Your task to perform on an android device: Open the stopwatch Image 0: 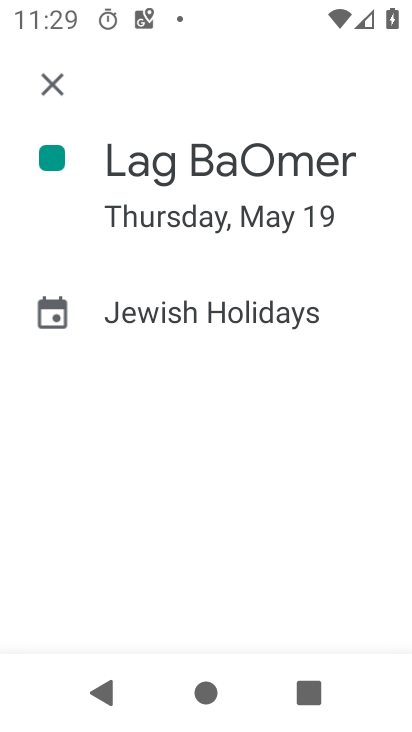
Step 0: press home button
Your task to perform on an android device: Open the stopwatch Image 1: 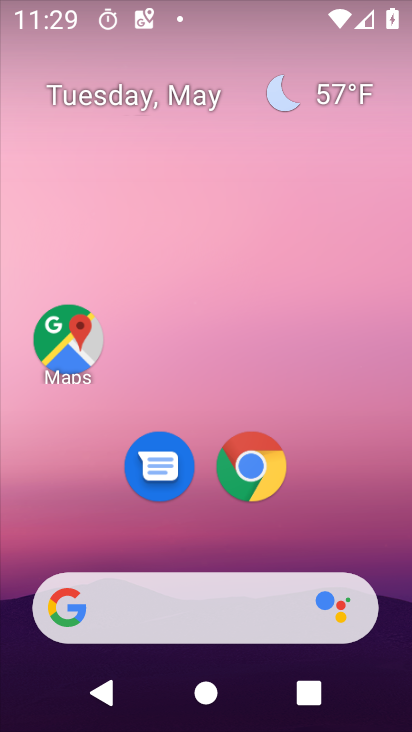
Step 1: drag from (225, 558) to (234, 231)
Your task to perform on an android device: Open the stopwatch Image 2: 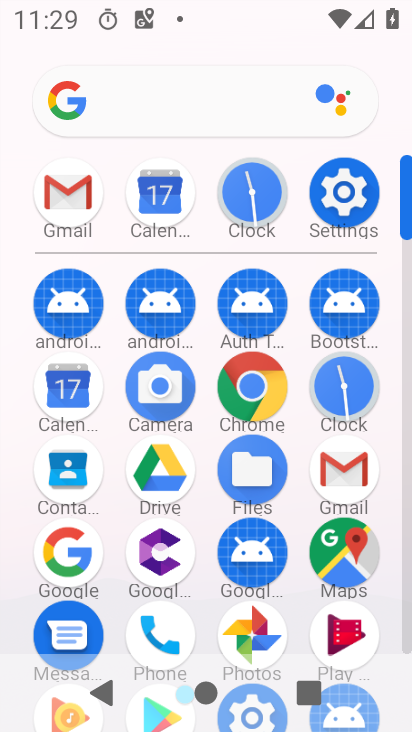
Step 2: click (278, 194)
Your task to perform on an android device: Open the stopwatch Image 3: 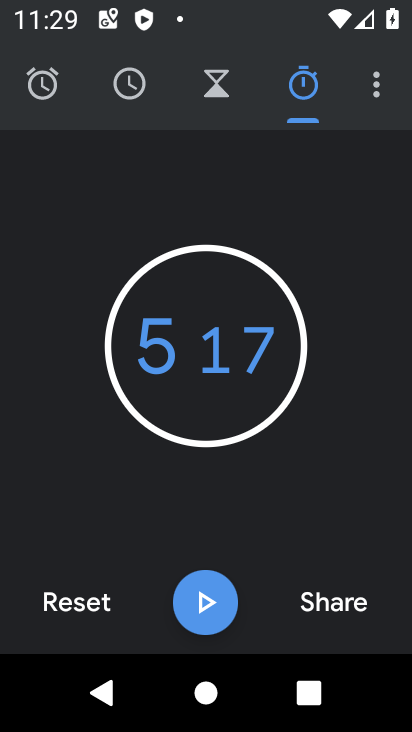
Step 3: task complete